Your task to perform on an android device: Open calendar and show me the third week of next month Image 0: 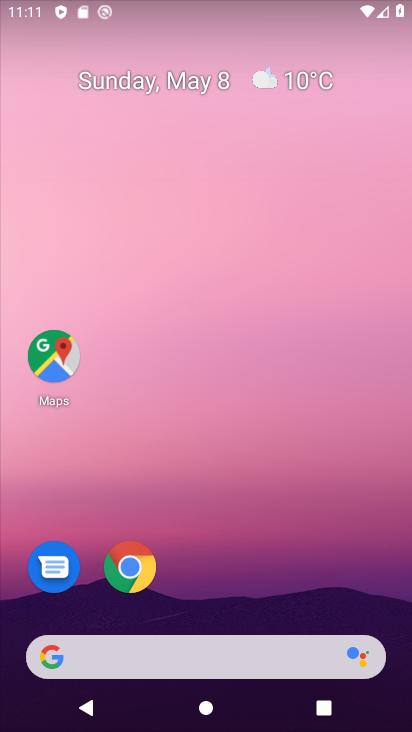
Step 0: drag from (307, 423) to (359, 78)
Your task to perform on an android device: Open calendar and show me the third week of next month Image 1: 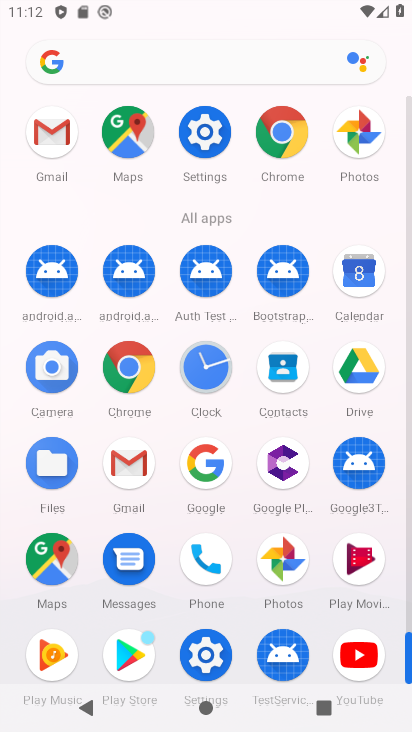
Step 1: click (364, 311)
Your task to perform on an android device: Open calendar and show me the third week of next month Image 2: 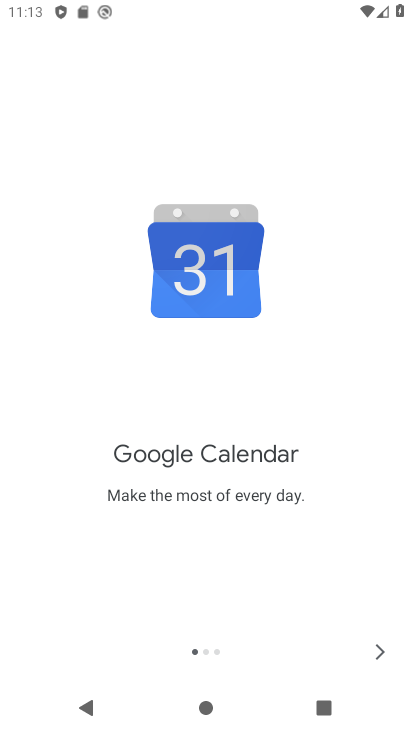
Step 2: click (384, 663)
Your task to perform on an android device: Open calendar and show me the third week of next month Image 3: 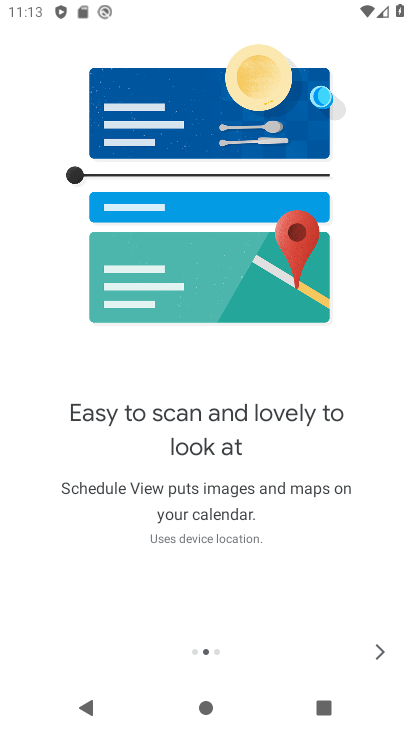
Step 3: click (379, 654)
Your task to perform on an android device: Open calendar and show me the third week of next month Image 4: 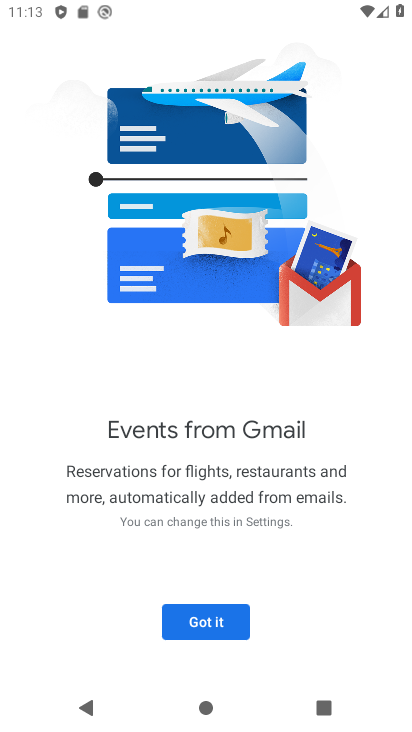
Step 4: click (196, 608)
Your task to perform on an android device: Open calendar and show me the third week of next month Image 5: 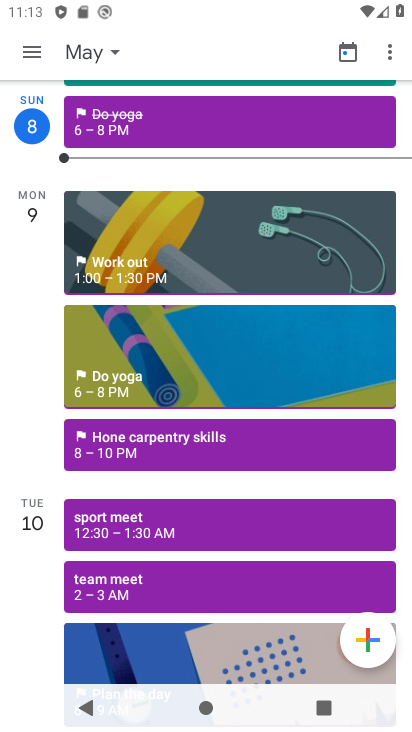
Step 5: click (83, 62)
Your task to perform on an android device: Open calendar and show me the third week of next month Image 6: 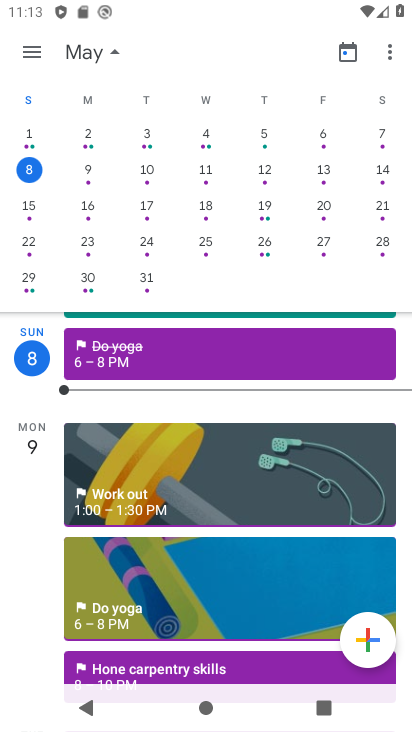
Step 6: drag from (362, 238) to (10, 193)
Your task to perform on an android device: Open calendar and show me the third week of next month Image 7: 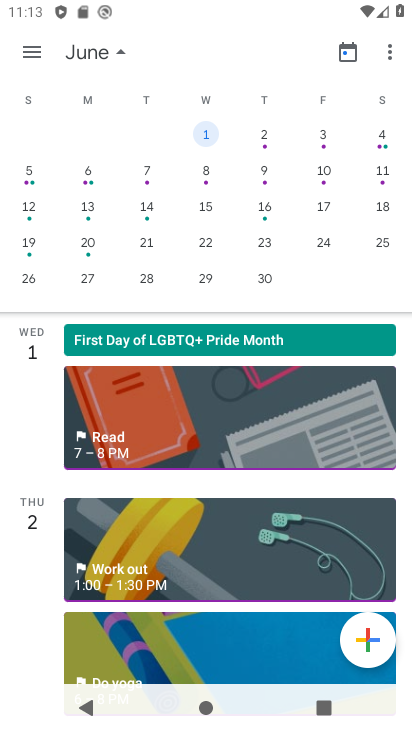
Step 7: click (30, 244)
Your task to perform on an android device: Open calendar and show me the third week of next month Image 8: 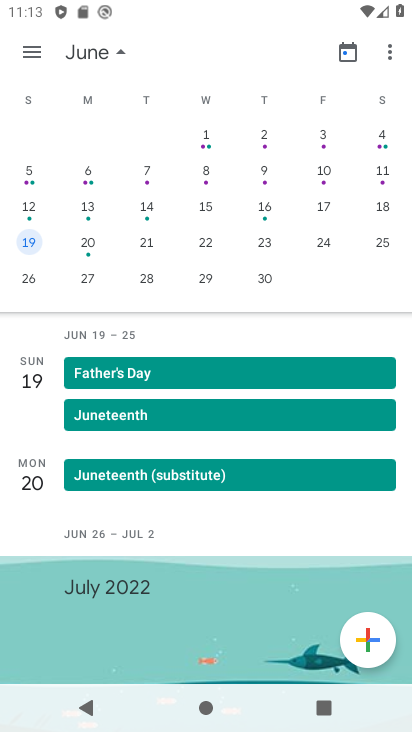
Step 8: task complete